Your task to perform on an android device: remove spam from my inbox in the gmail app Image 0: 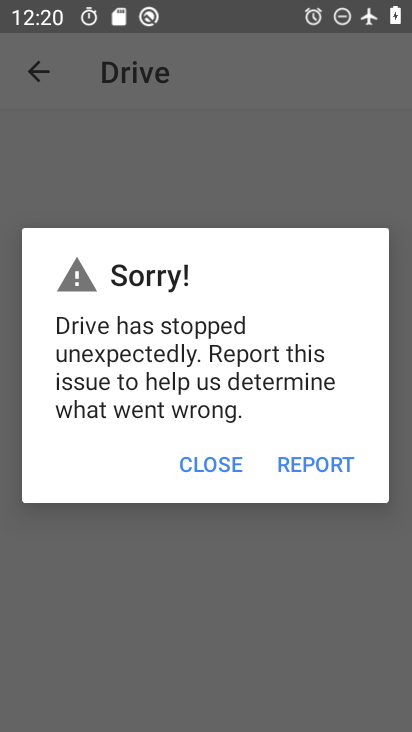
Step 0: press home button
Your task to perform on an android device: remove spam from my inbox in the gmail app Image 1: 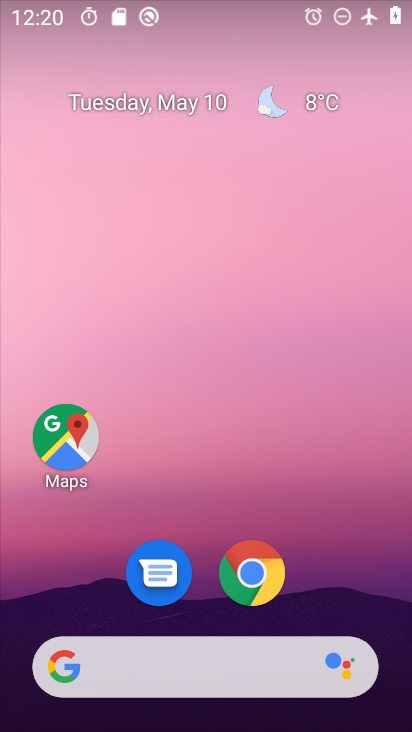
Step 1: drag from (357, 546) to (358, 64)
Your task to perform on an android device: remove spam from my inbox in the gmail app Image 2: 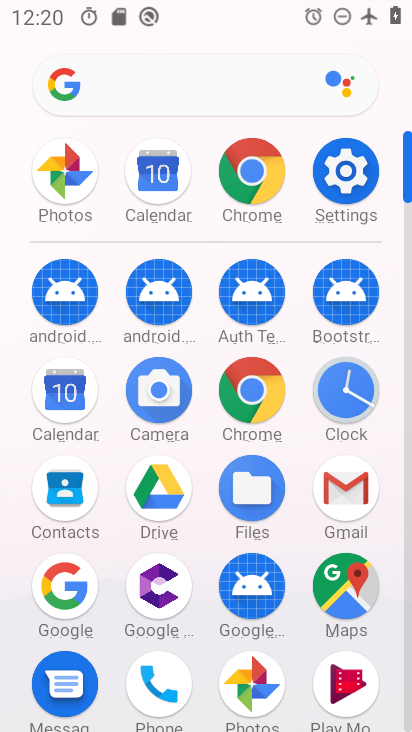
Step 2: click (339, 490)
Your task to perform on an android device: remove spam from my inbox in the gmail app Image 3: 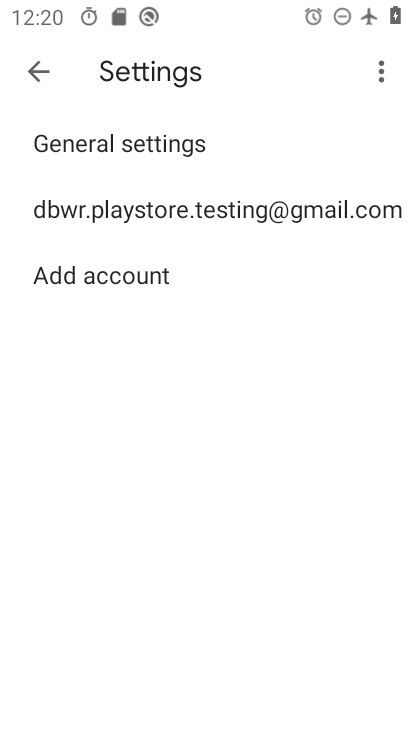
Step 3: click (20, 83)
Your task to perform on an android device: remove spam from my inbox in the gmail app Image 4: 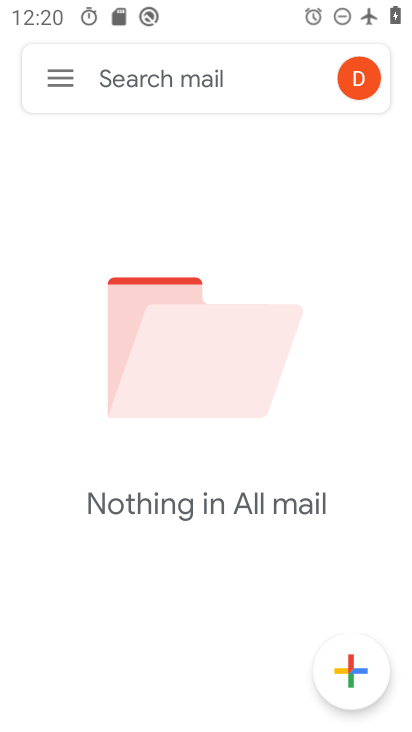
Step 4: click (63, 84)
Your task to perform on an android device: remove spam from my inbox in the gmail app Image 5: 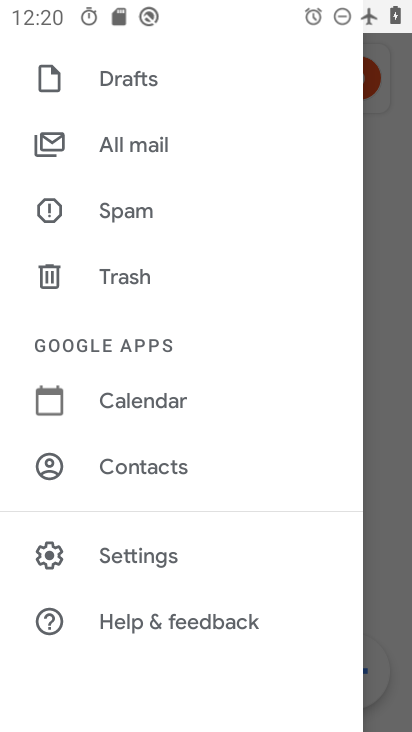
Step 5: click (156, 213)
Your task to perform on an android device: remove spam from my inbox in the gmail app Image 6: 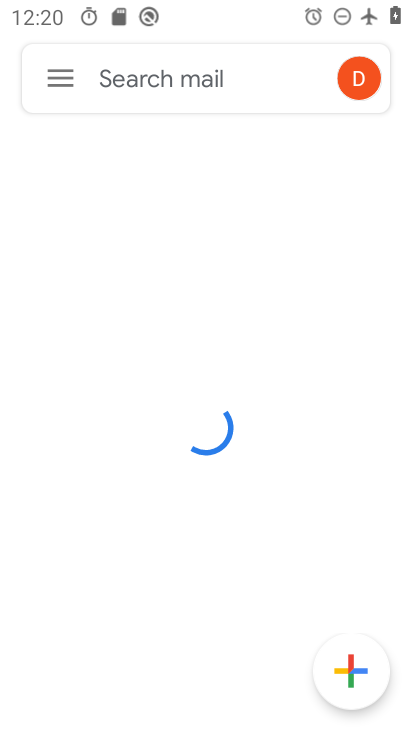
Step 6: click (55, 76)
Your task to perform on an android device: remove spam from my inbox in the gmail app Image 7: 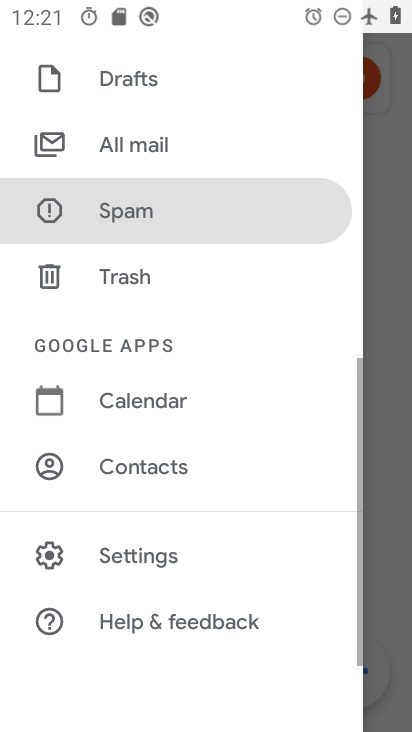
Step 7: drag from (155, 127) to (186, 691)
Your task to perform on an android device: remove spam from my inbox in the gmail app Image 8: 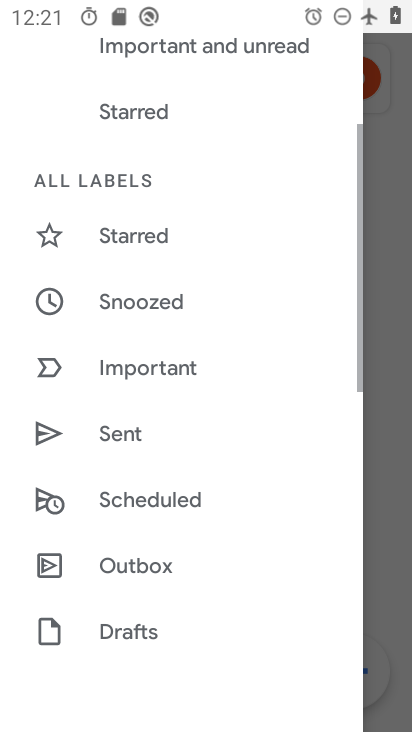
Step 8: drag from (166, 249) to (171, 586)
Your task to perform on an android device: remove spam from my inbox in the gmail app Image 9: 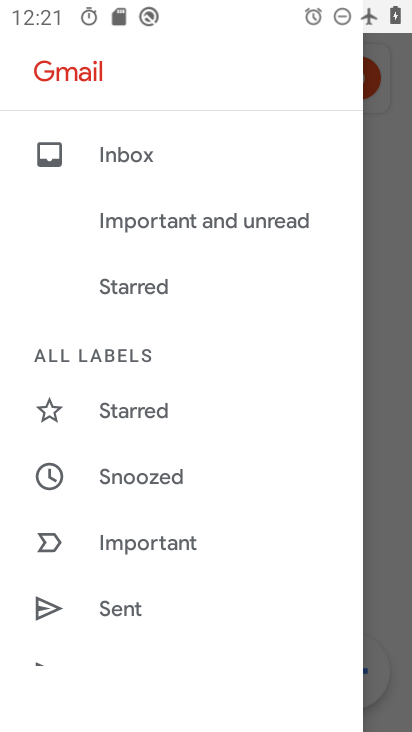
Step 9: click (131, 152)
Your task to perform on an android device: remove spam from my inbox in the gmail app Image 10: 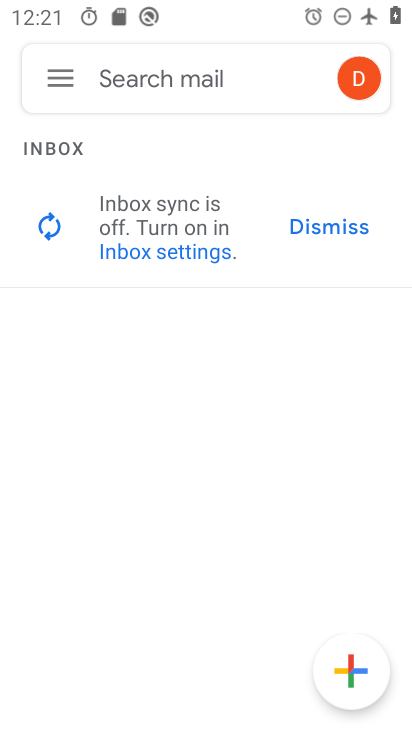
Step 10: task complete